Your task to perform on an android device: delete location history Image 0: 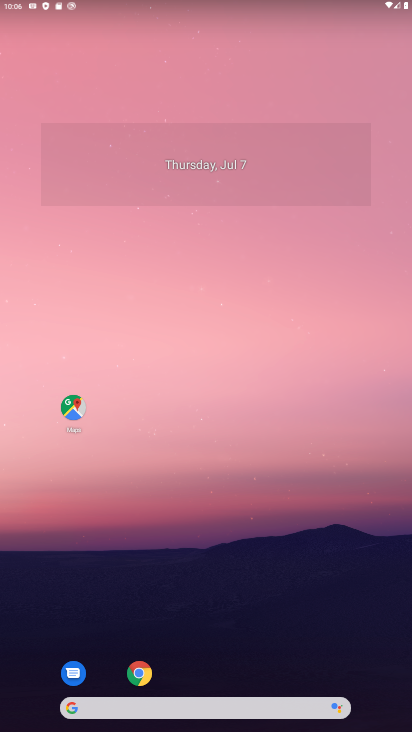
Step 0: drag from (226, 659) to (297, 46)
Your task to perform on an android device: delete location history Image 1: 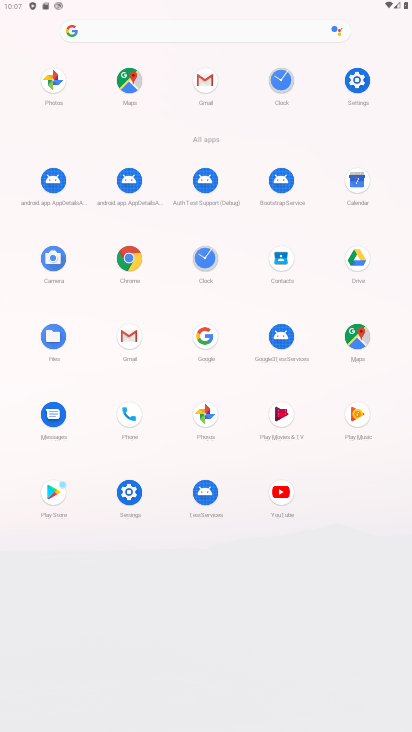
Step 1: click (137, 286)
Your task to perform on an android device: delete location history Image 2: 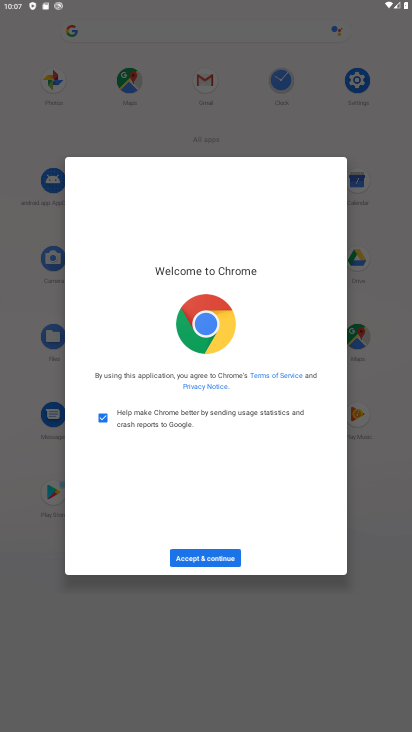
Step 2: click (205, 571)
Your task to perform on an android device: delete location history Image 3: 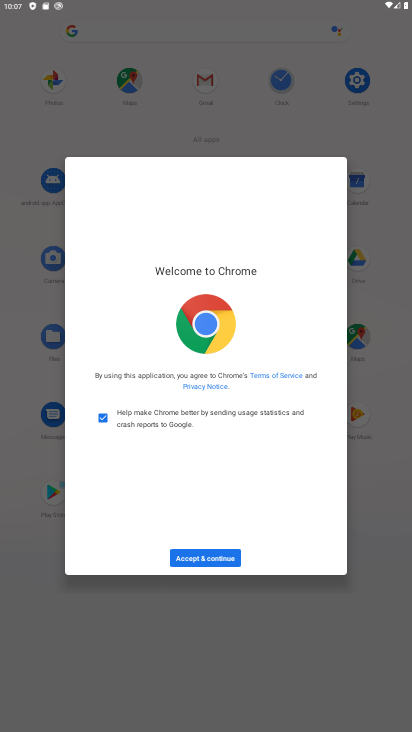
Step 3: click (208, 561)
Your task to perform on an android device: delete location history Image 4: 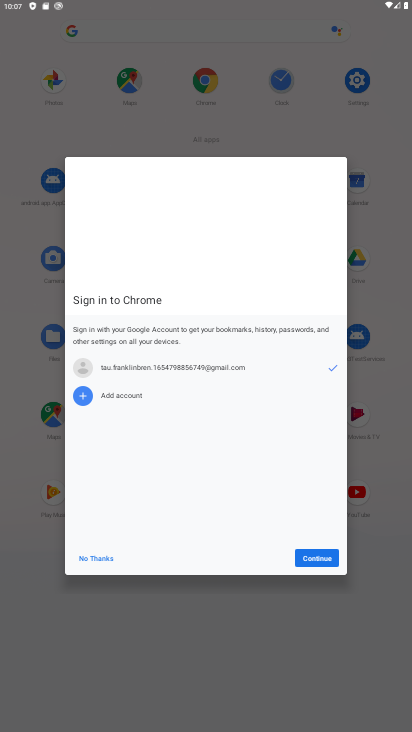
Step 4: press home button
Your task to perform on an android device: delete location history Image 5: 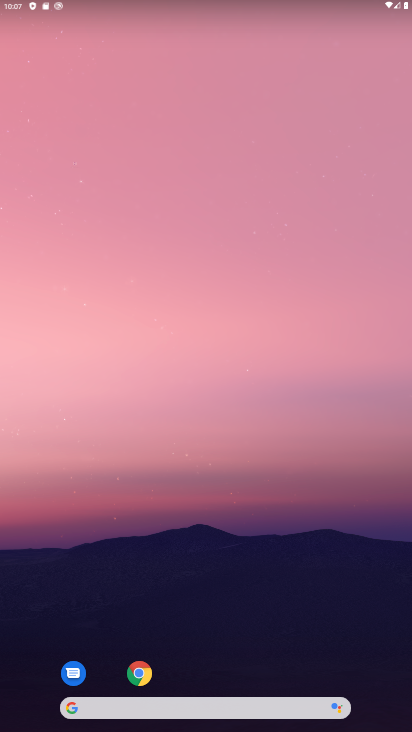
Step 5: drag from (234, 689) to (267, 65)
Your task to perform on an android device: delete location history Image 6: 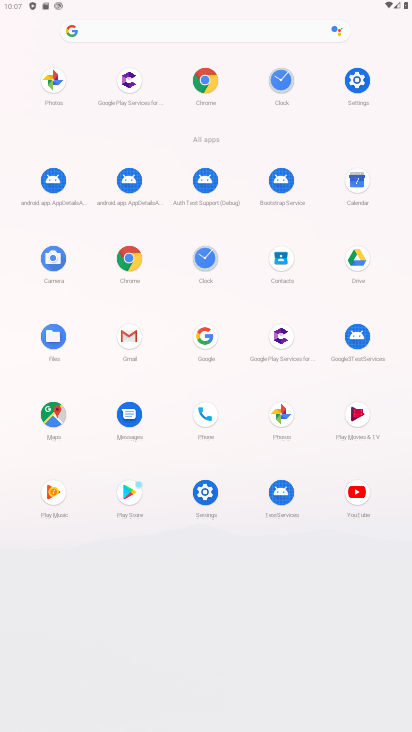
Step 6: click (54, 414)
Your task to perform on an android device: delete location history Image 7: 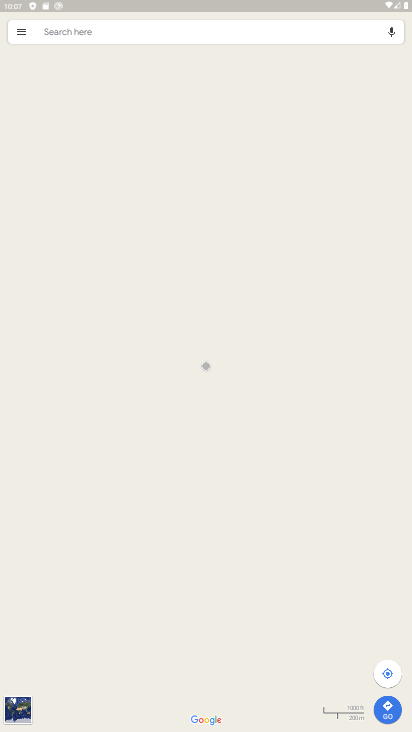
Step 7: click (18, 28)
Your task to perform on an android device: delete location history Image 8: 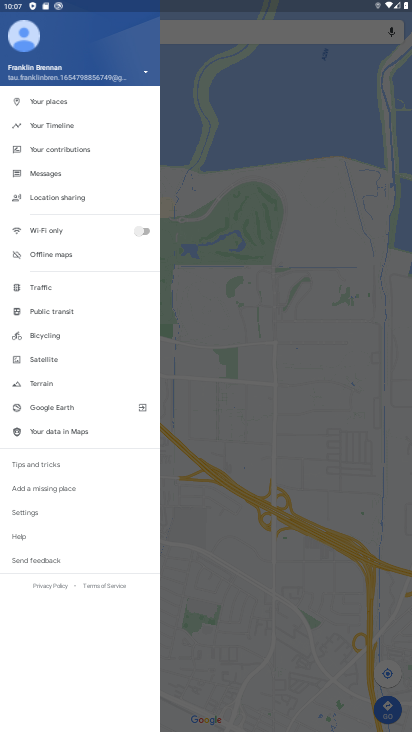
Step 8: click (61, 128)
Your task to perform on an android device: delete location history Image 9: 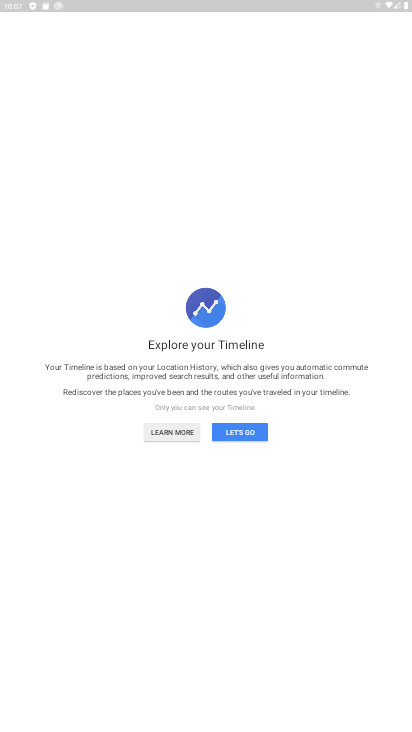
Step 9: click (252, 438)
Your task to perform on an android device: delete location history Image 10: 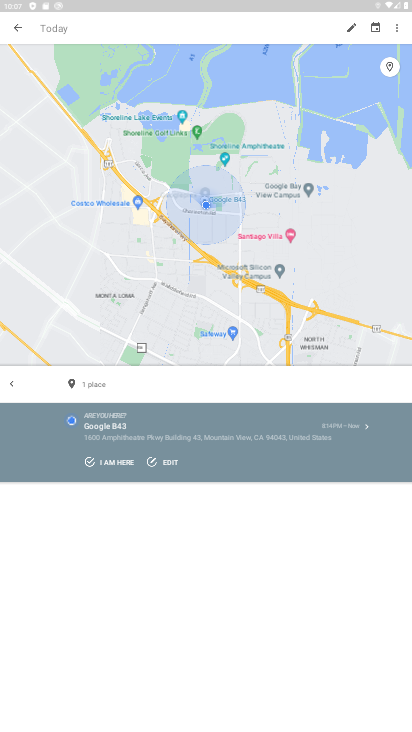
Step 10: click (396, 30)
Your task to perform on an android device: delete location history Image 11: 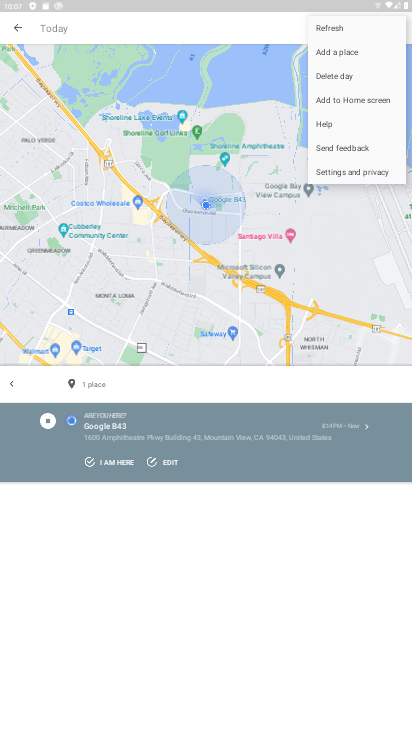
Step 11: click (351, 170)
Your task to perform on an android device: delete location history Image 12: 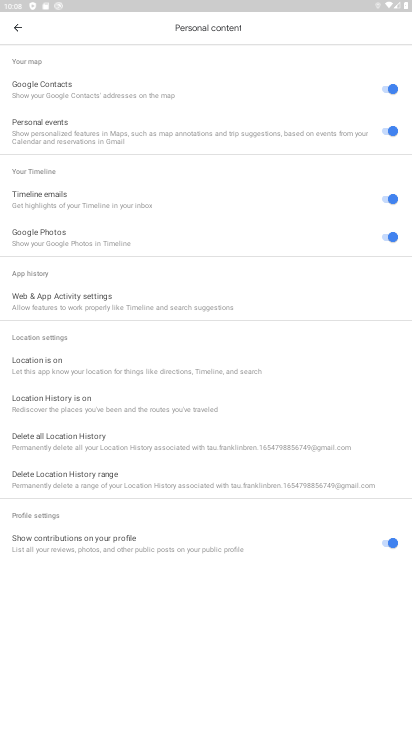
Step 12: click (118, 449)
Your task to perform on an android device: delete location history Image 13: 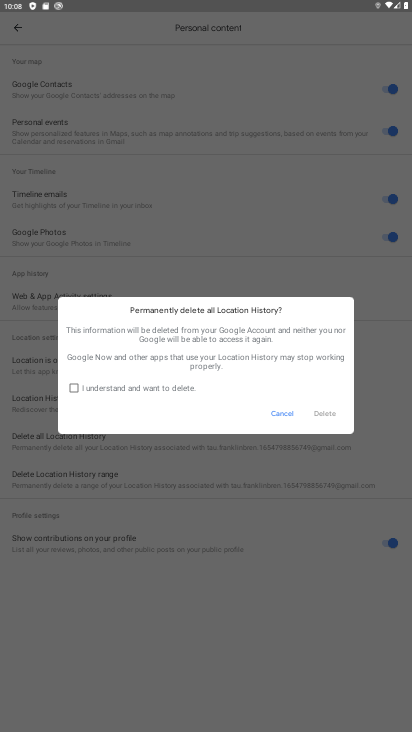
Step 13: click (98, 387)
Your task to perform on an android device: delete location history Image 14: 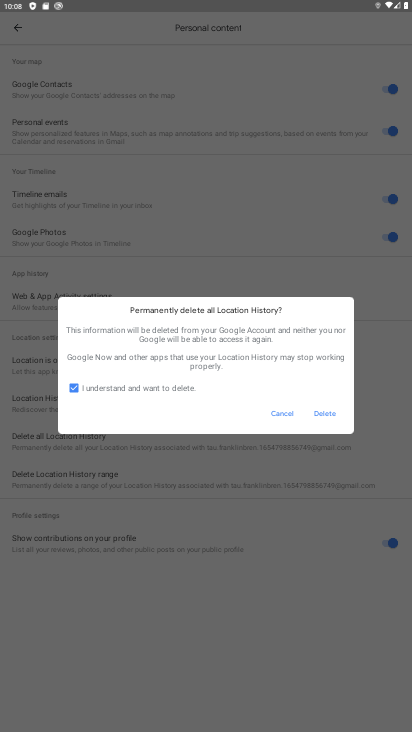
Step 14: click (332, 414)
Your task to perform on an android device: delete location history Image 15: 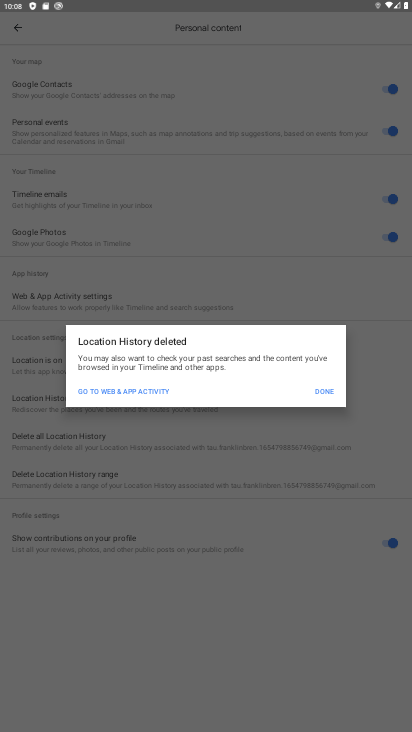
Step 15: click (325, 391)
Your task to perform on an android device: delete location history Image 16: 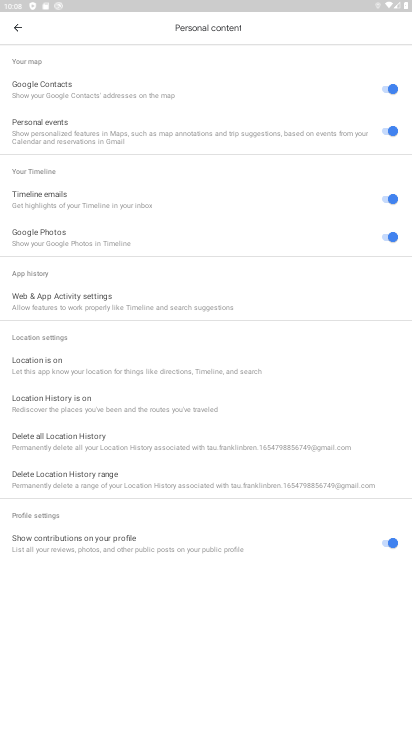
Step 16: task complete